Your task to perform on an android device: change the clock display to digital Image 0: 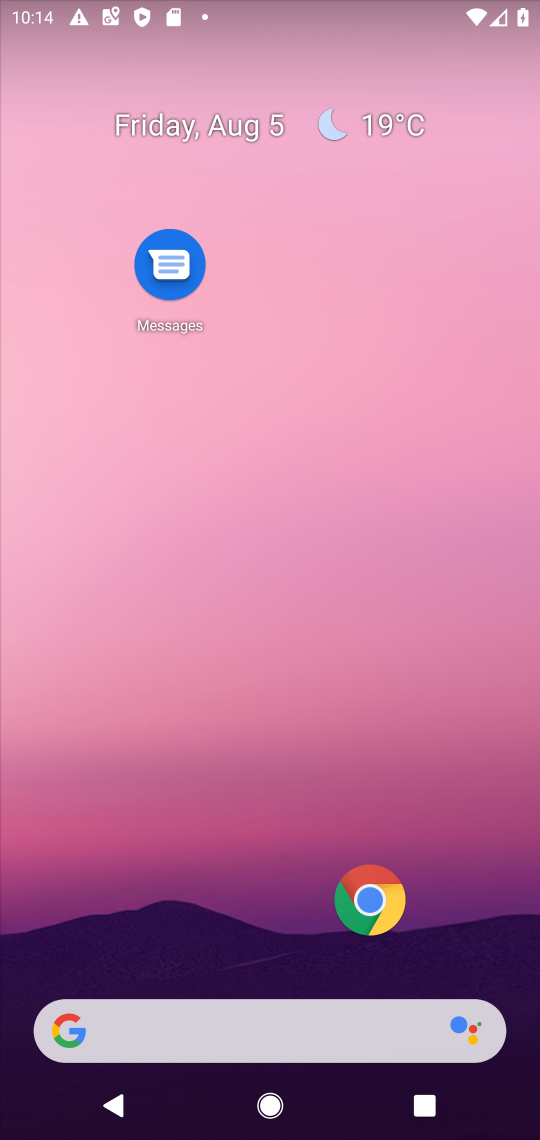
Step 0: drag from (201, 856) to (410, 80)
Your task to perform on an android device: change the clock display to digital Image 1: 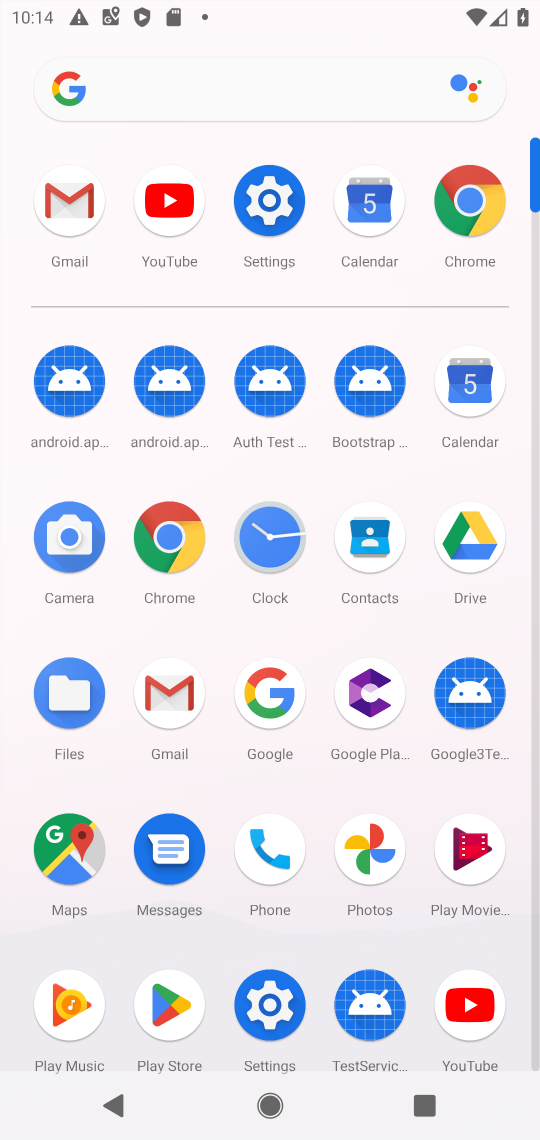
Step 1: click (271, 534)
Your task to perform on an android device: change the clock display to digital Image 2: 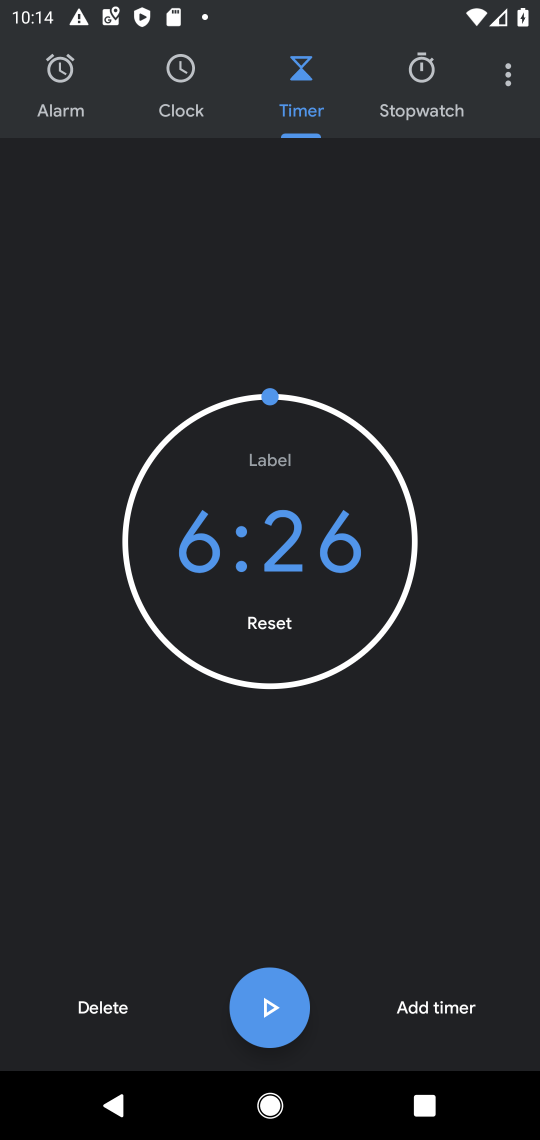
Step 2: click (510, 74)
Your task to perform on an android device: change the clock display to digital Image 3: 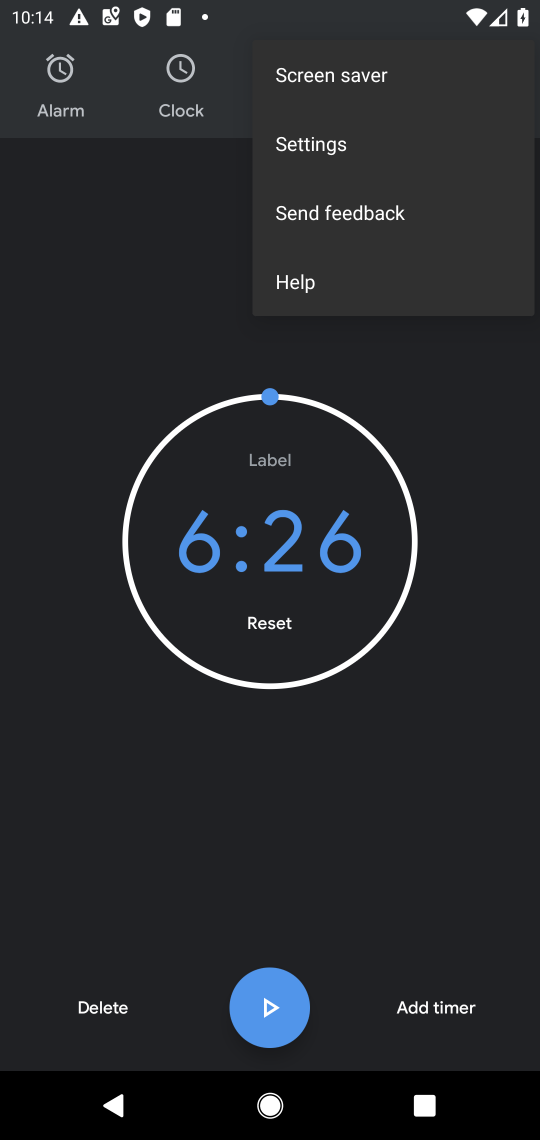
Step 3: click (319, 132)
Your task to perform on an android device: change the clock display to digital Image 4: 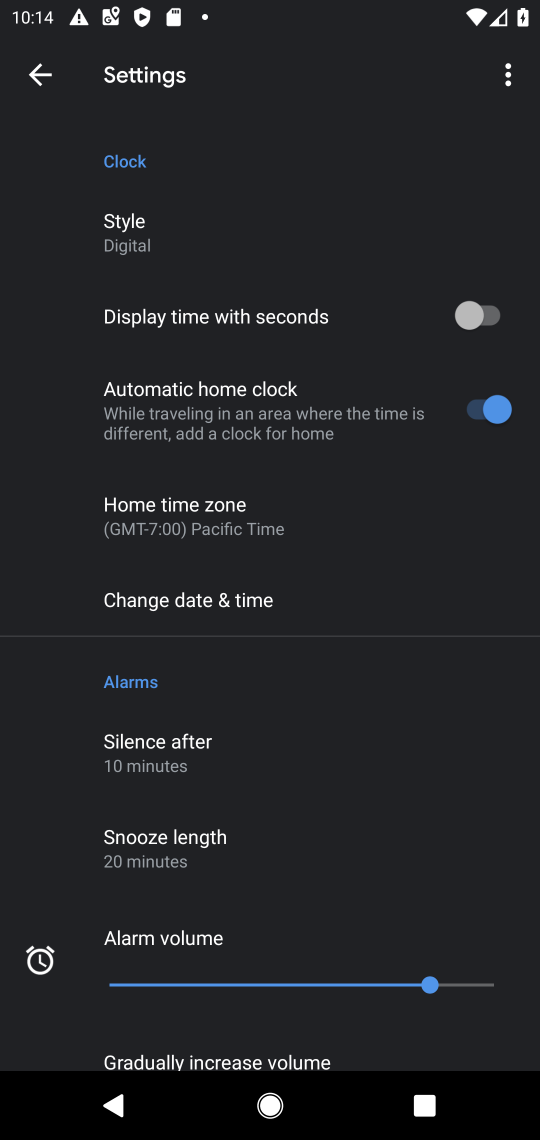
Step 4: task complete